Your task to perform on an android device: Go to Maps Image 0: 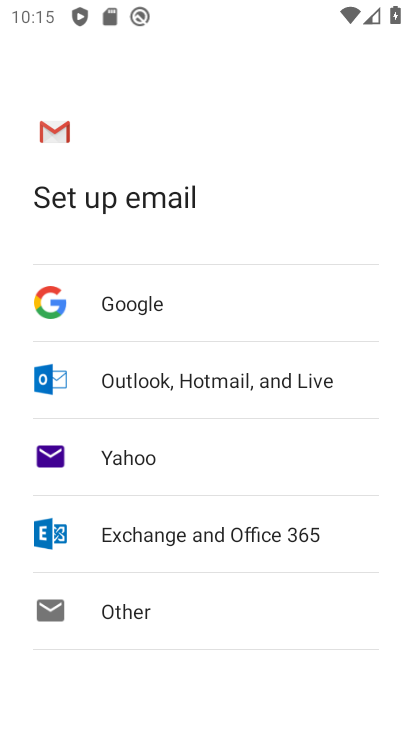
Step 0: press back button
Your task to perform on an android device: Go to Maps Image 1: 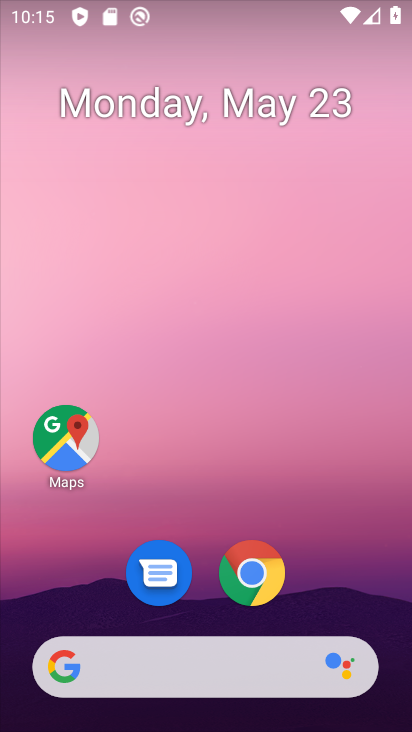
Step 1: drag from (301, 529) to (173, 15)
Your task to perform on an android device: Go to Maps Image 2: 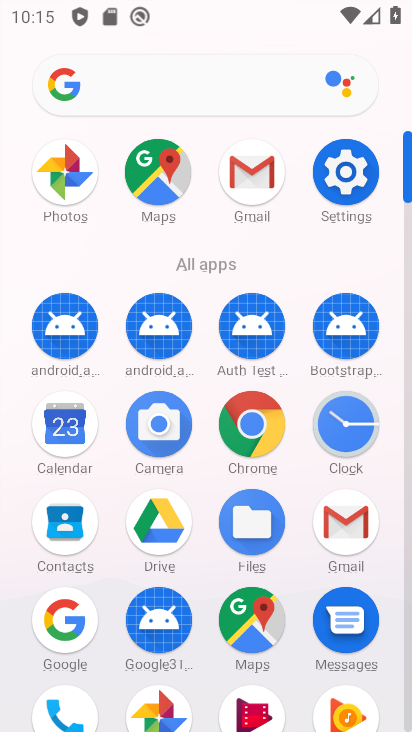
Step 2: drag from (16, 568) to (15, 171)
Your task to perform on an android device: Go to Maps Image 3: 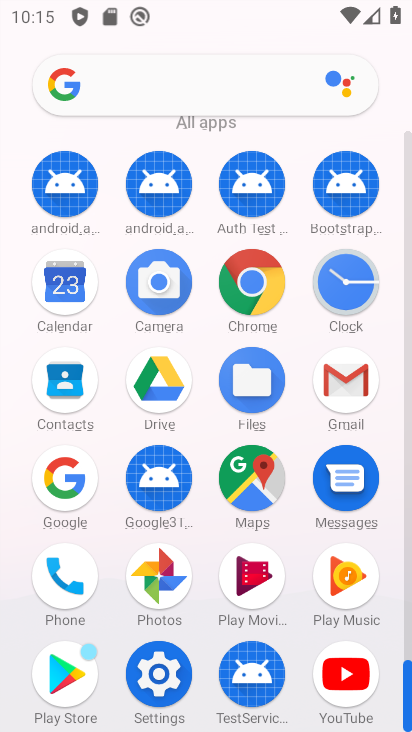
Step 3: click (239, 468)
Your task to perform on an android device: Go to Maps Image 4: 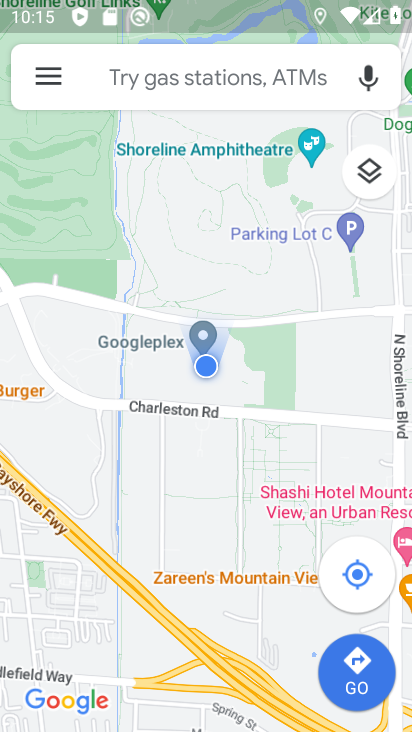
Step 4: click (197, 73)
Your task to perform on an android device: Go to Maps Image 5: 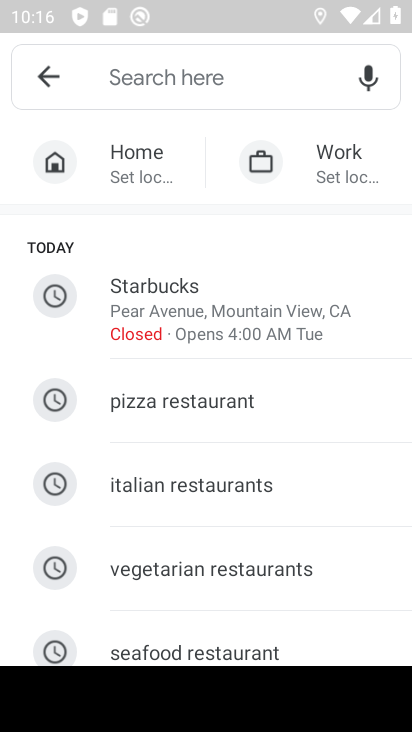
Step 5: click (62, 72)
Your task to perform on an android device: Go to Maps Image 6: 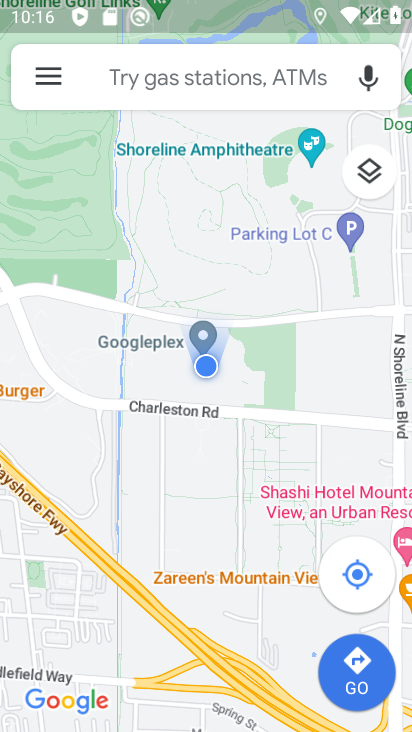
Step 6: task complete